Your task to perform on an android device: Go to Yahoo.com Image 0: 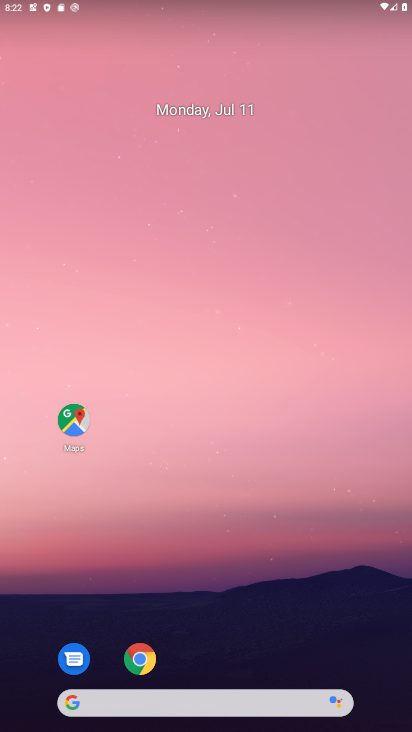
Step 0: click (359, 22)
Your task to perform on an android device: Go to Yahoo.com Image 1: 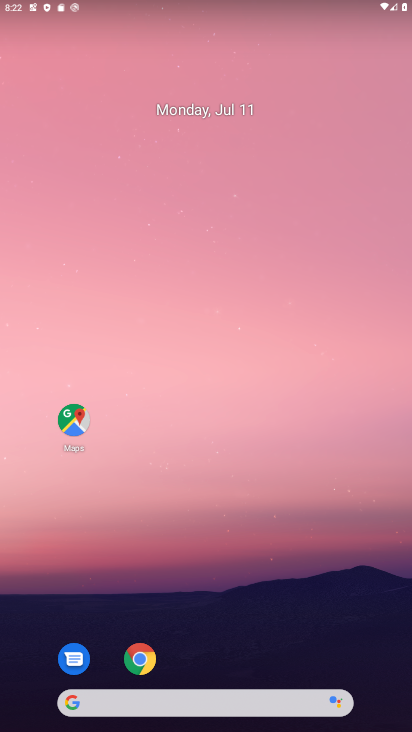
Step 1: drag from (191, 669) to (152, 102)
Your task to perform on an android device: Go to Yahoo.com Image 2: 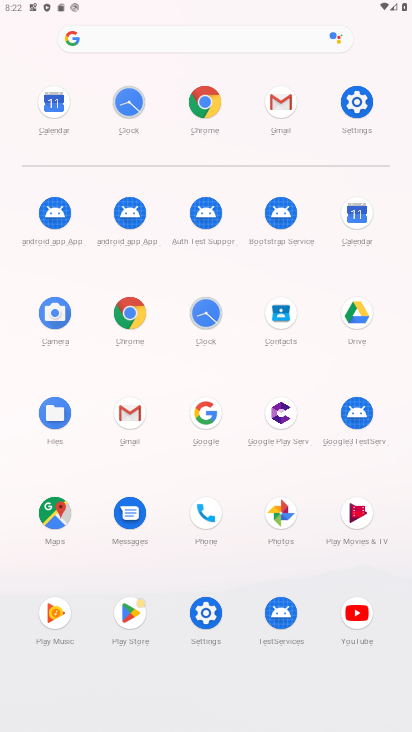
Step 2: click (163, 46)
Your task to perform on an android device: Go to Yahoo.com Image 3: 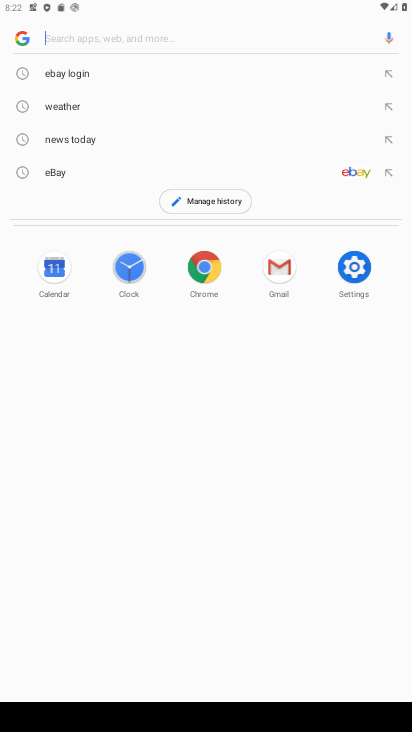
Step 3: type "Yahoo.com"
Your task to perform on an android device: Go to Yahoo.com Image 4: 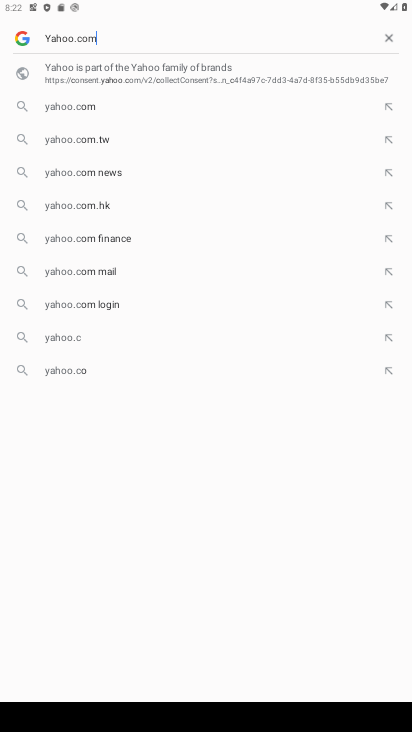
Step 4: type ""
Your task to perform on an android device: Go to Yahoo.com Image 5: 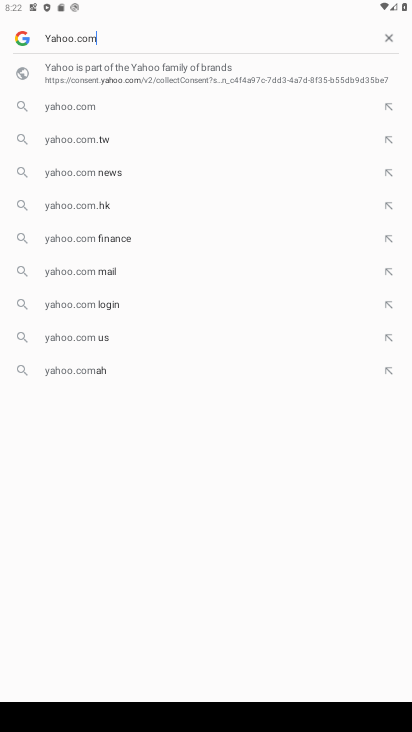
Step 5: click (105, 103)
Your task to perform on an android device: Go to Yahoo.com Image 6: 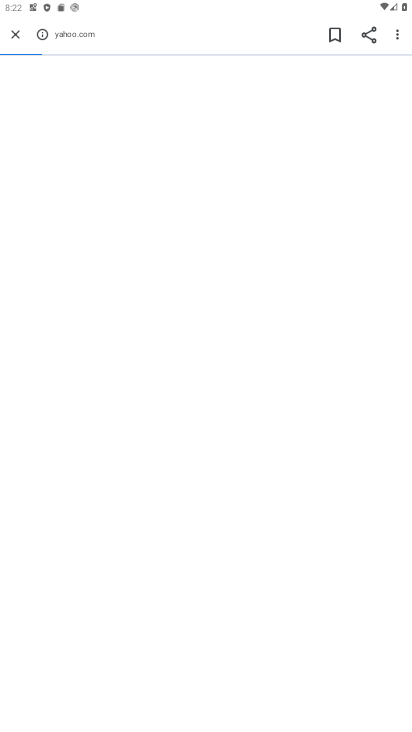
Step 6: task complete